Your task to perform on an android device: turn on airplane mode Image 0: 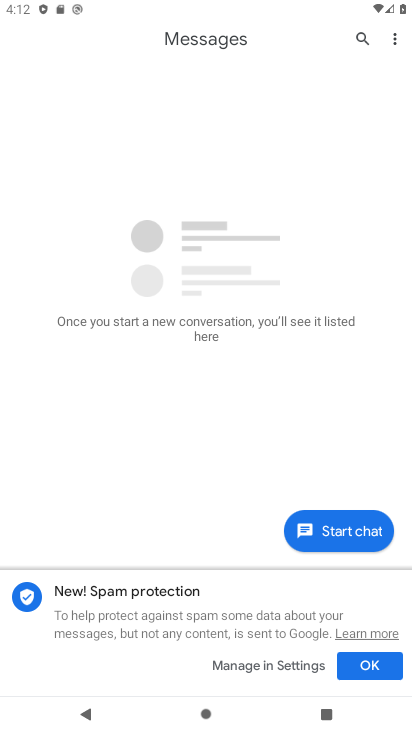
Step 0: press home button
Your task to perform on an android device: turn on airplane mode Image 1: 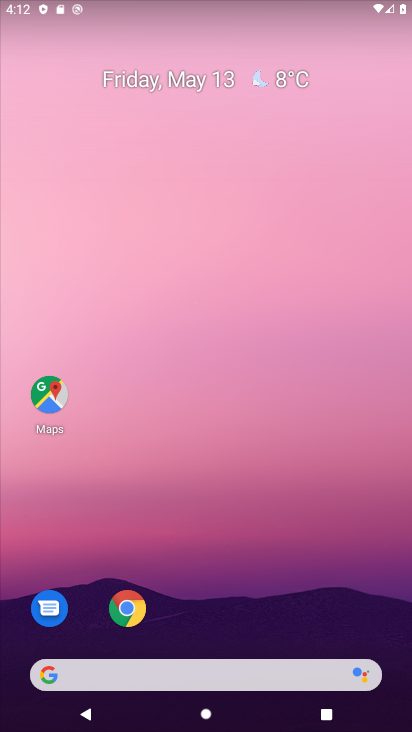
Step 1: drag from (240, 569) to (255, 112)
Your task to perform on an android device: turn on airplane mode Image 2: 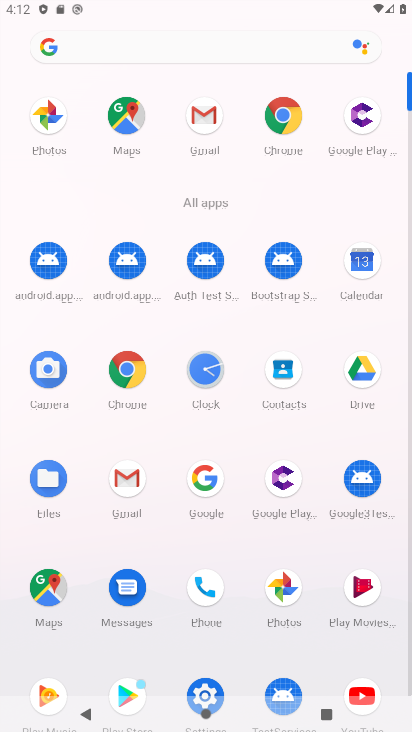
Step 2: drag from (234, 632) to (241, 432)
Your task to perform on an android device: turn on airplane mode Image 3: 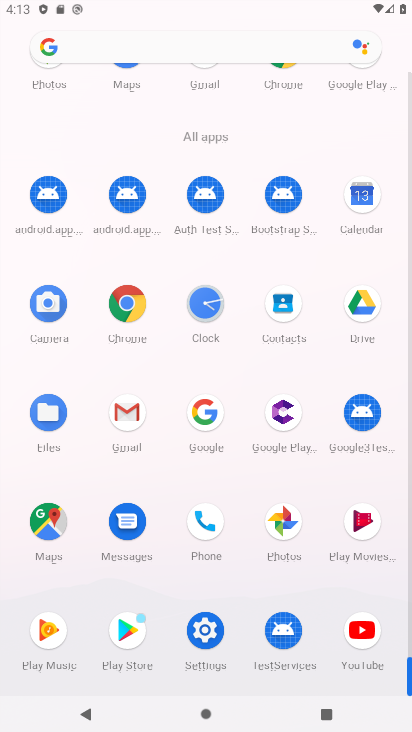
Step 3: click (203, 627)
Your task to perform on an android device: turn on airplane mode Image 4: 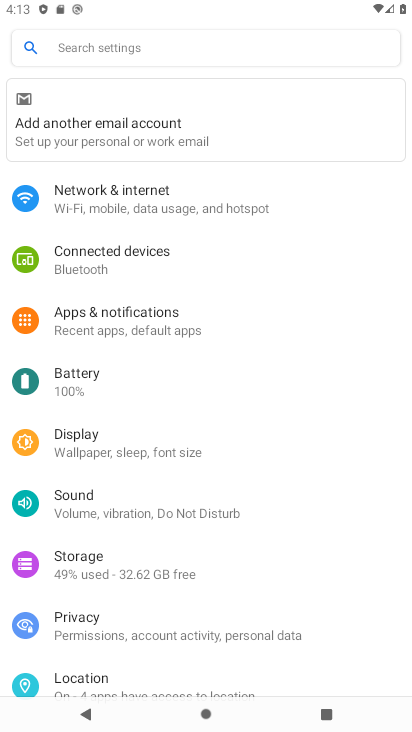
Step 4: click (149, 195)
Your task to perform on an android device: turn on airplane mode Image 5: 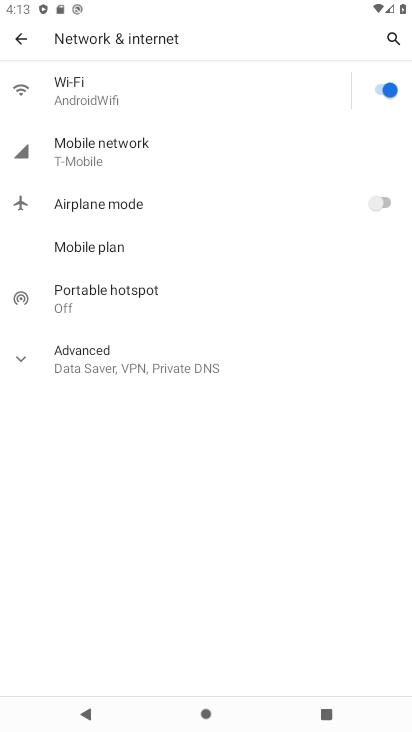
Step 5: click (382, 206)
Your task to perform on an android device: turn on airplane mode Image 6: 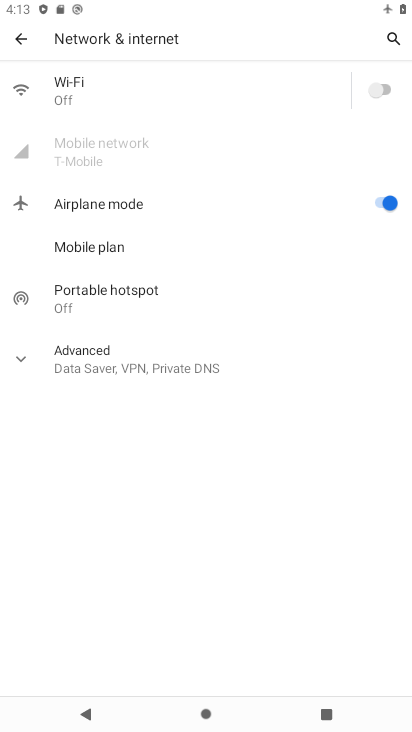
Step 6: task complete